Your task to perform on an android device: open app "PlayWell" (install if not already installed) and go to login screen Image 0: 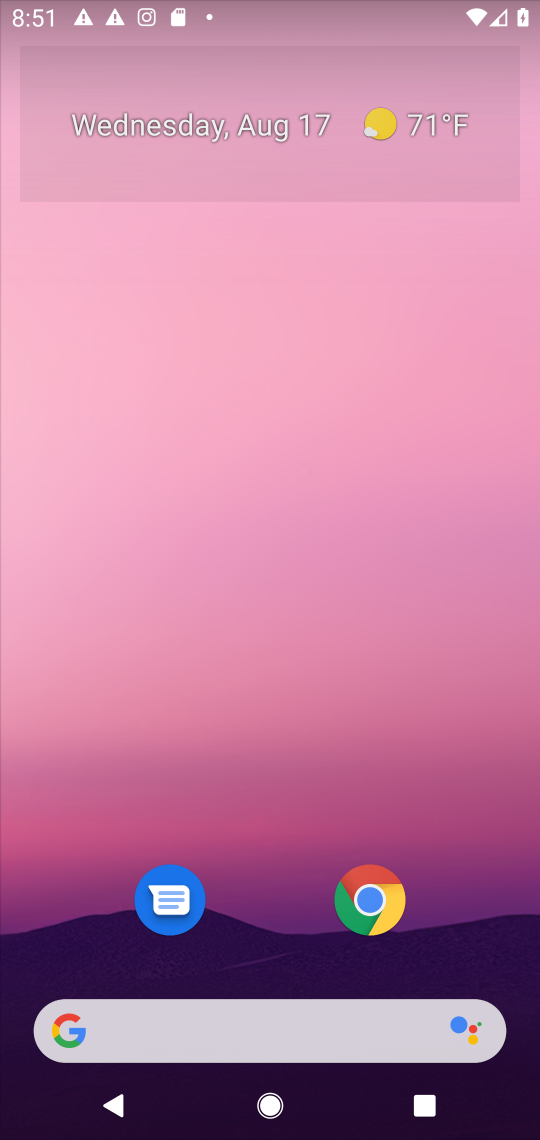
Step 0: drag from (287, 961) to (421, 250)
Your task to perform on an android device: open app "PlayWell" (install if not already installed) and go to login screen Image 1: 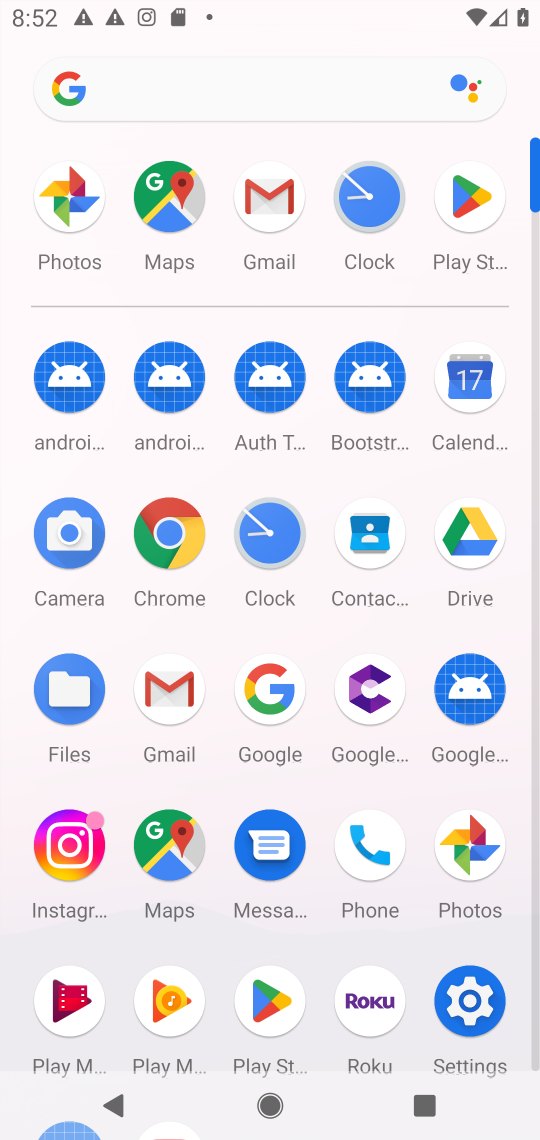
Step 1: click (457, 203)
Your task to perform on an android device: open app "PlayWell" (install if not already installed) and go to login screen Image 2: 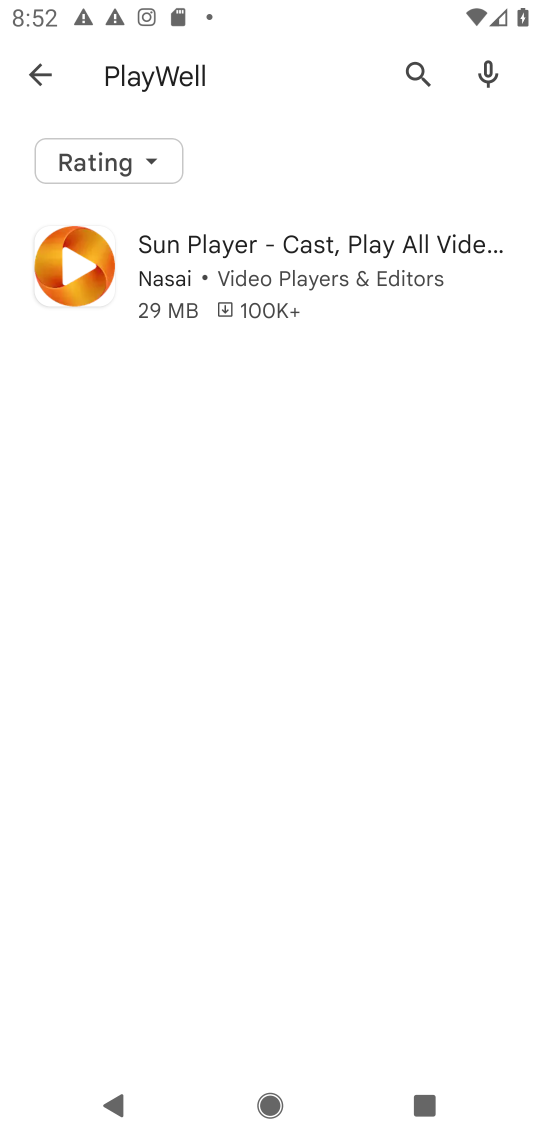
Step 2: click (20, 82)
Your task to perform on an android device: open app "PlayWell" (install if not already installed) and go to login screen Image 3: 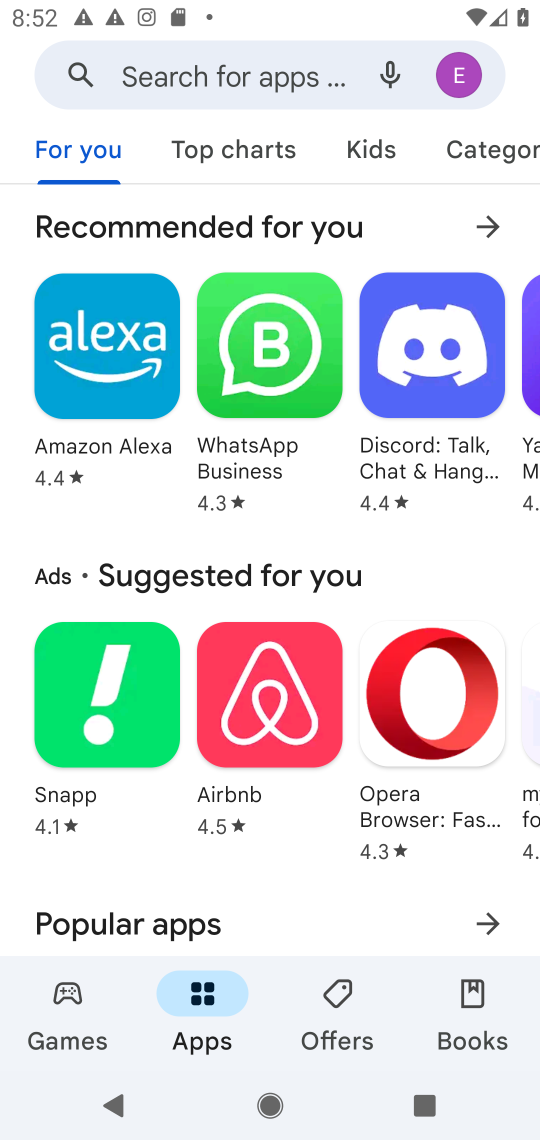
Step 3: click (245, 75)
Your task to perform on an android device: open app "PlayWell" (install if not already installed) and go to login screen Image 4: 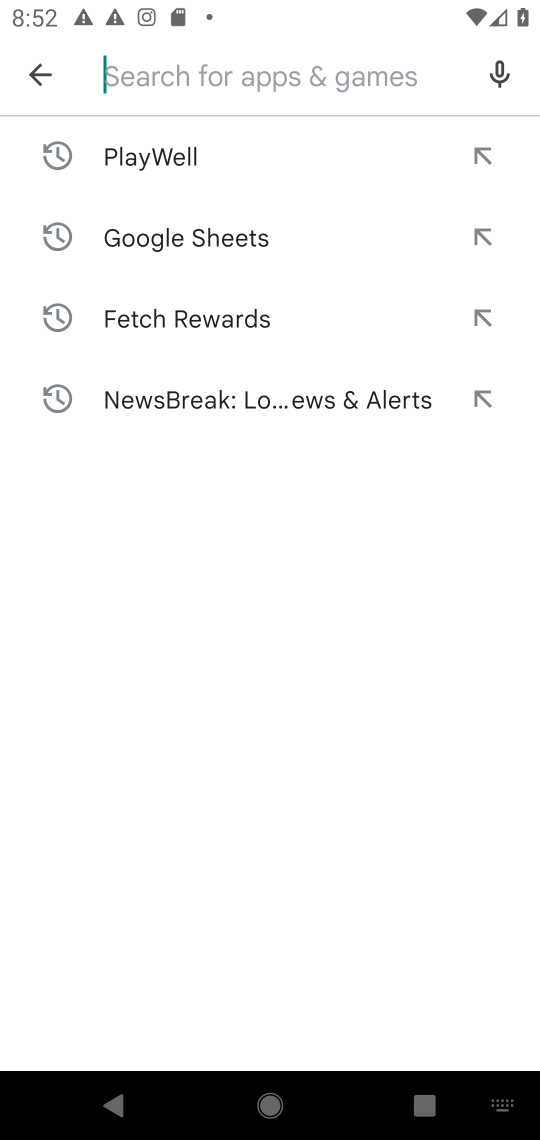
Step 4: type "PlayWell"
Your task to perform on an android device: open app "PlayWell" (install if not already installed) and go to login screen Image 5: 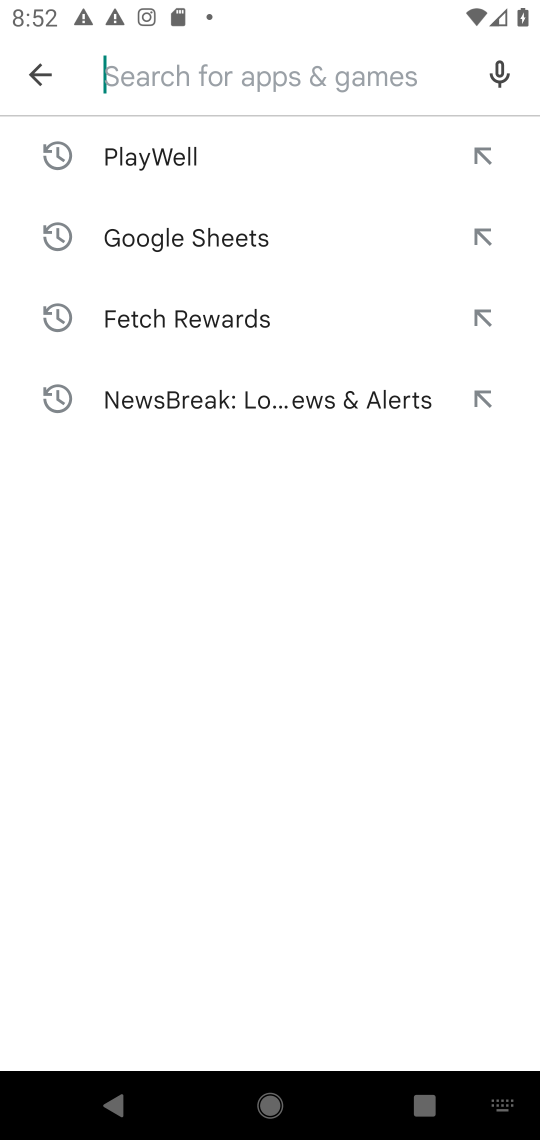
Step 5: click (113, 167)
Your task to perform on an android device: open app "PlayWell" (install if not already installed) and go to login screen Image 6: 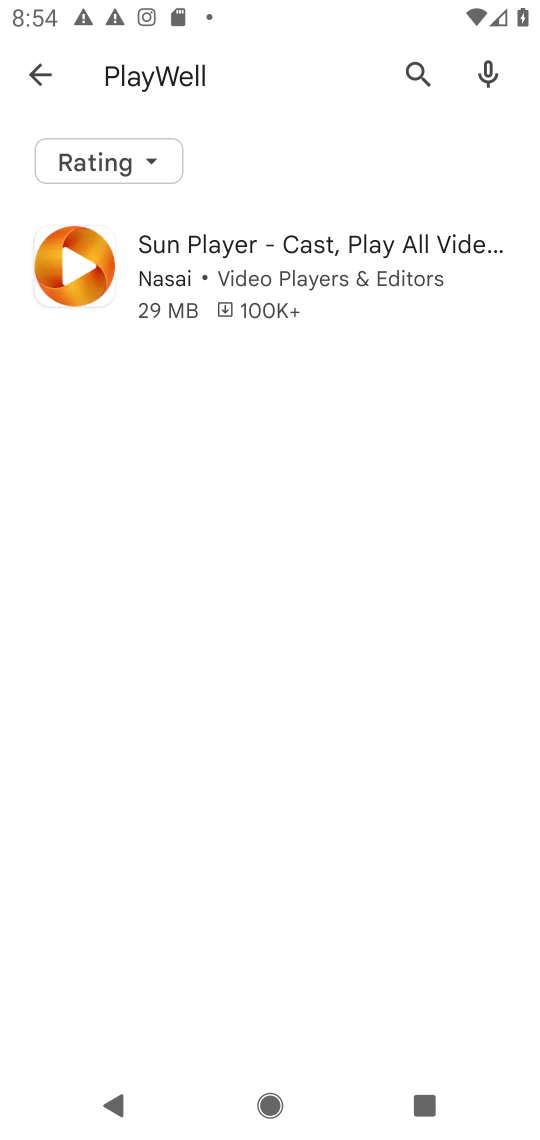
Step 6: task complete